Your task to perform on an android device: change the clock display to analog Image 0: 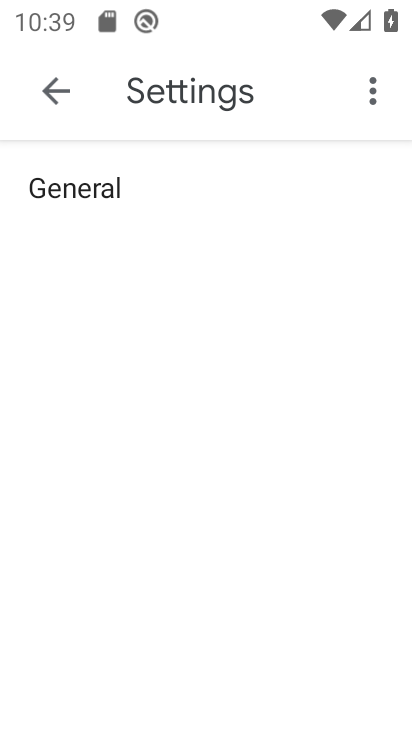
Step 0: press home button
Your task to perform on an android device: change the clock display to analog Image 1: 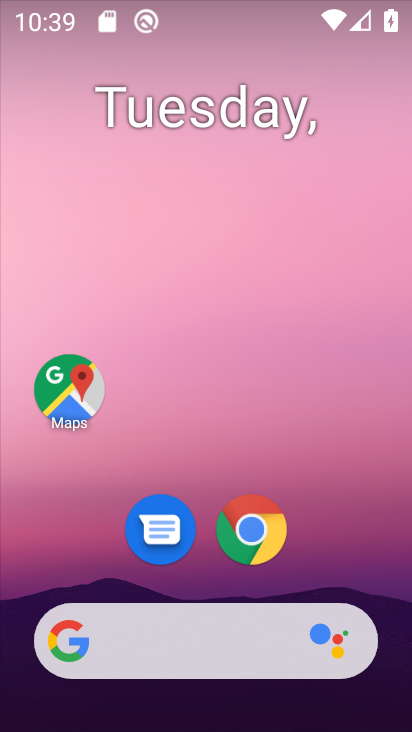
Step 1: drag from (77, 608) to (214, 32)
Your task to perform on an android device: change the clock display to analog Image 2: 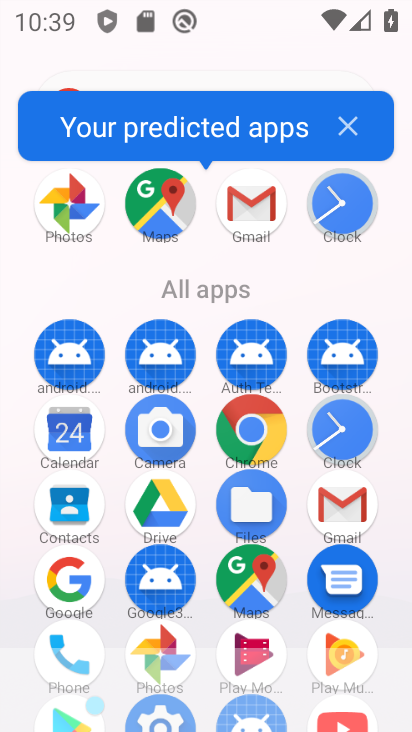
Step 2: click (354, 445)
Your task to perform on an android device: change the clock display to analog Image 3: 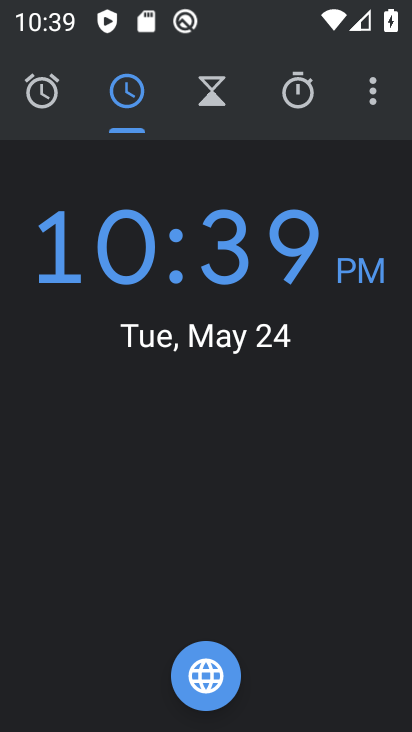
Step 3: click (371, 84)
Your task to perform on an android device: change the clock display to analog Image 4: 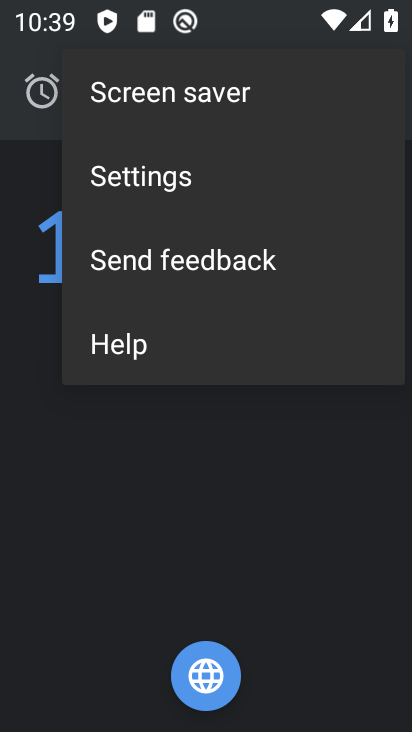
Step 4: click (290, 165)
Your task to perform on an android device: change the clock display to analog Image 5: 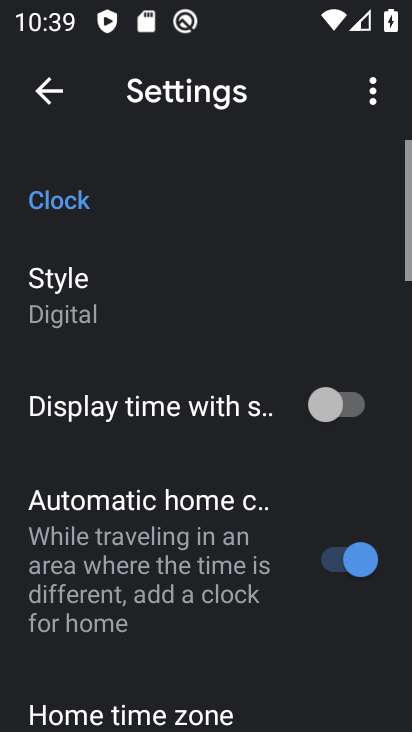
Step 5: click (195, 301)
Your task to perform on an android device: change the clock display to analog Image 6: 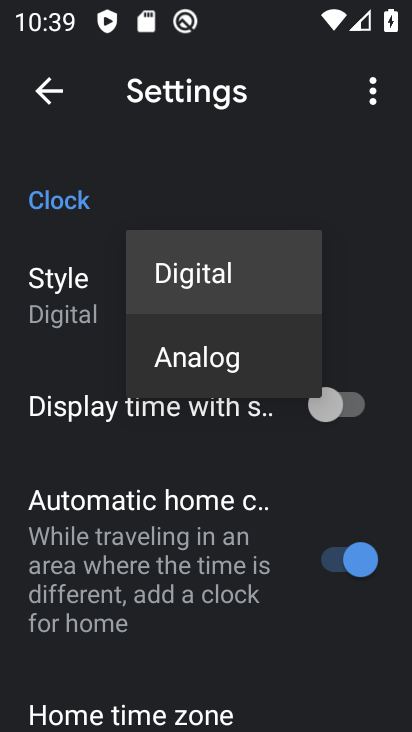
Step 6: click (197, 375)
Your task to perform on an android device: change the clock display to analog Image 7: 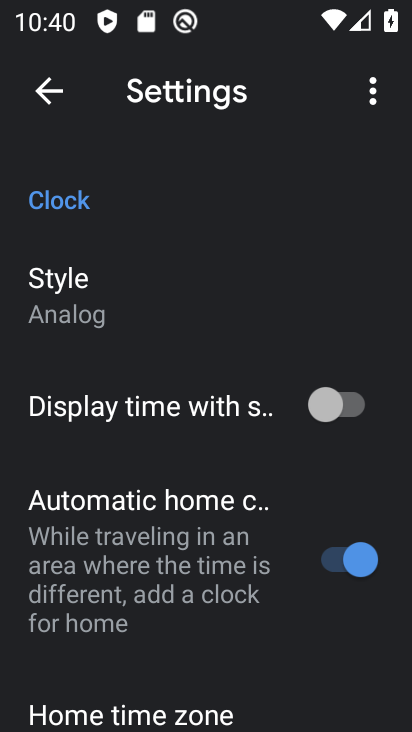
Step 7: task complete